Your task to perform on an android device: Open Reddit.com Image 0: 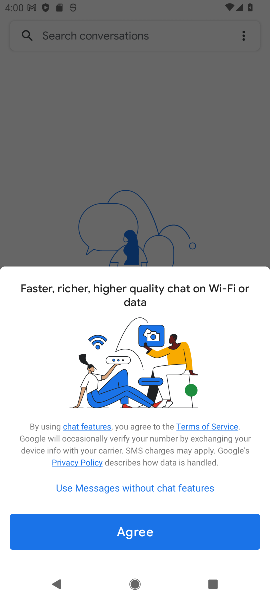
Step 0: press home button
Your task to perform on an android device: Open Reddit.com Image 1: 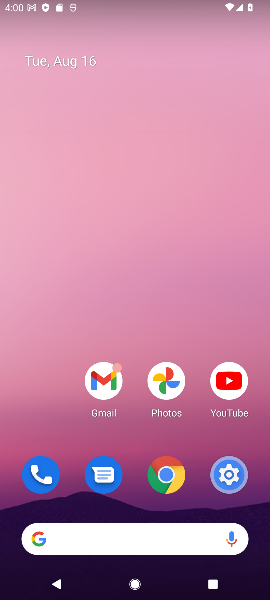
Step 1: drag from (257, 490) to (169, 0)
Your task to perform on an android device: Open Reddit.com Image 2: 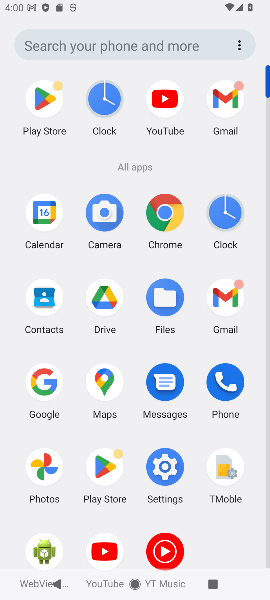
Step 2: click (57, 386)
Your task to perform on an android device: Open Reddit.com Image 3: 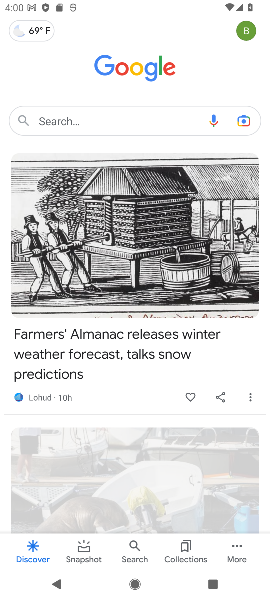
Step 3: click (97, 125)
Your task to perform on an android device: Open Reddit.com Image 4: 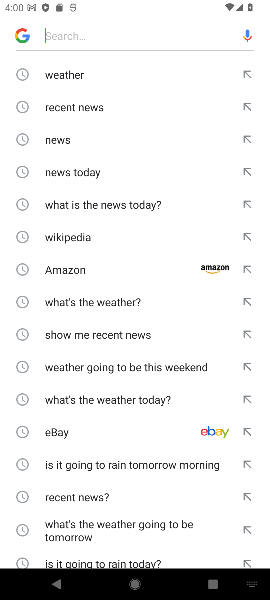
Step 4: type "Reddit.com"
Your task to perform on an android device: Open Reddit.com Image 5: 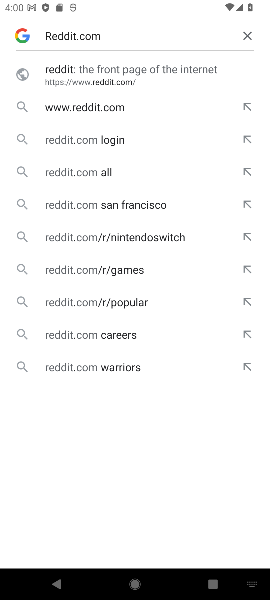
Step 5: click (94, 61)
Your task to perform on an android device: Open Reddit.com Image 6: 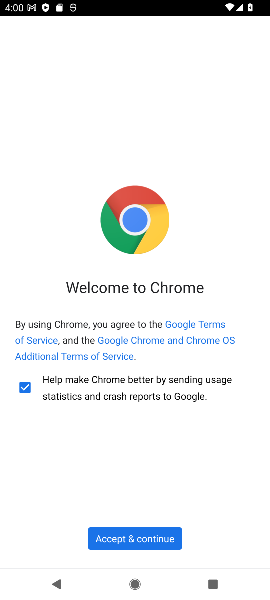
Step 6: click (149, 535)
Your task to perform on an android device: Open Reddit.com Image 7: 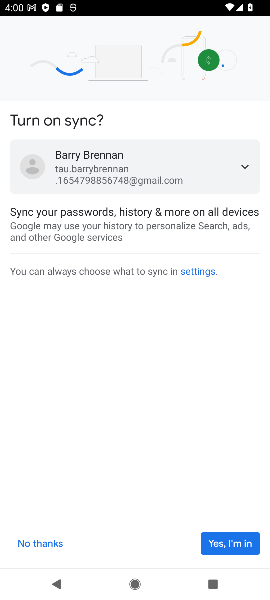
Step 7: click (230, 541)
Your task to perform on an android device: Open Reddit.com Image 8: 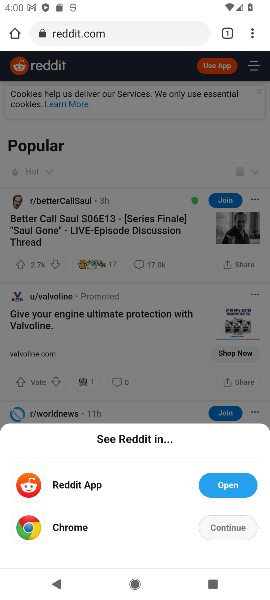
Step 8: task complete